Your task to perform on an android device: Is it going to rain today? Image 0: 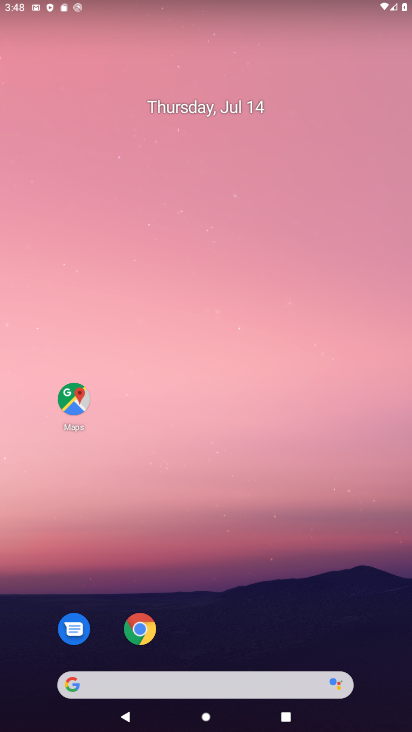
Step 0: click (115, 685)
Your task to perform on an android device: Is it going to rain today? Image 1: 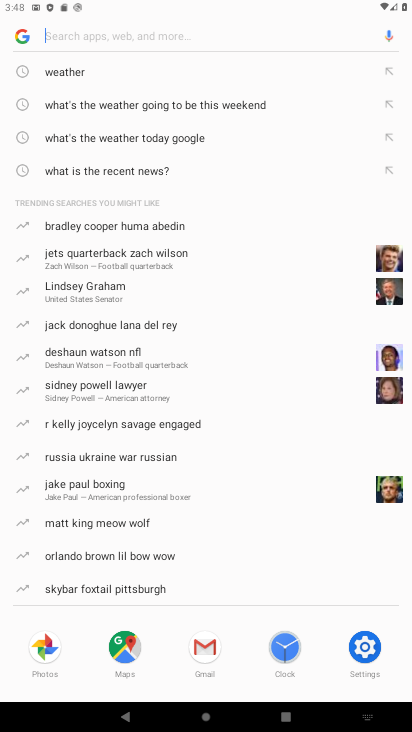
Step 1: type "Is it going to rain today?"
Your task to perform on an android device: Is it going to rain today? Image 2: 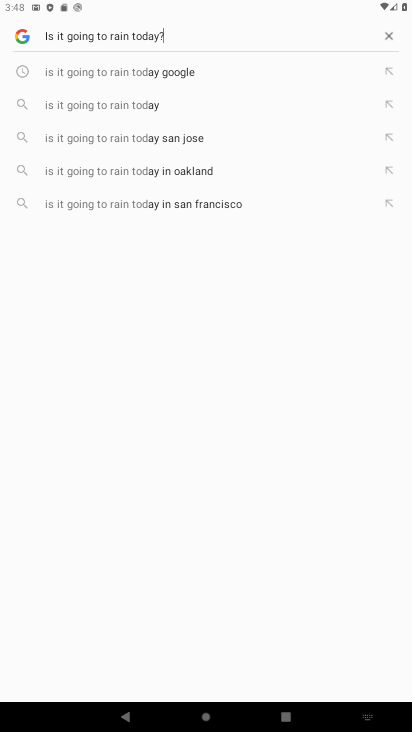
Step 2: type ""
Your task to perform on an android device: Is it going to rain today? Image 3: 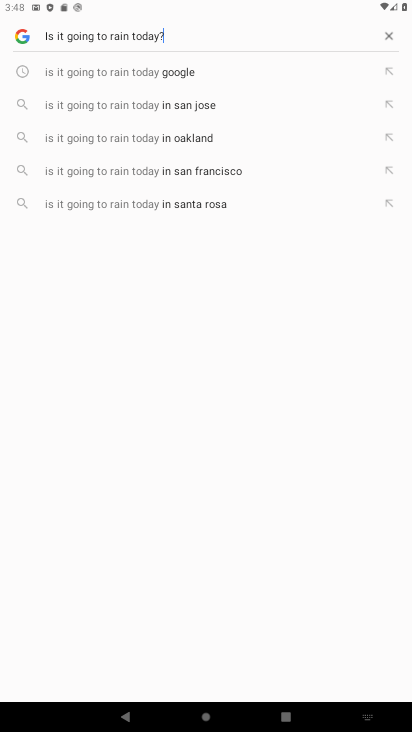
Step 3: type ""
Your task to perform on an android device: Is it going to rain today? Image 4: 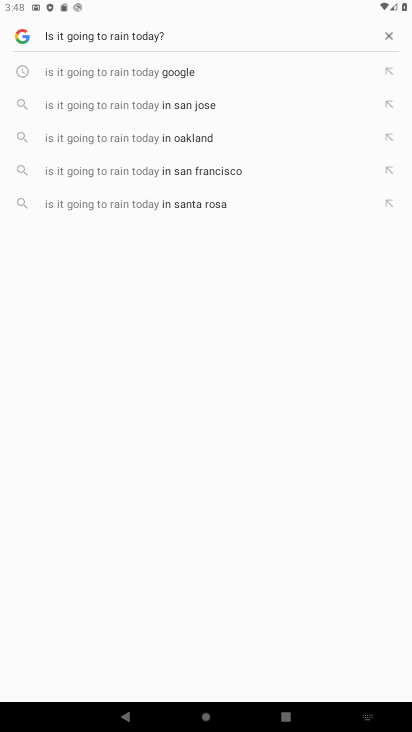
Step 4: type ""
Your task to perform on an android device: Is it going to rain today? Image 5: 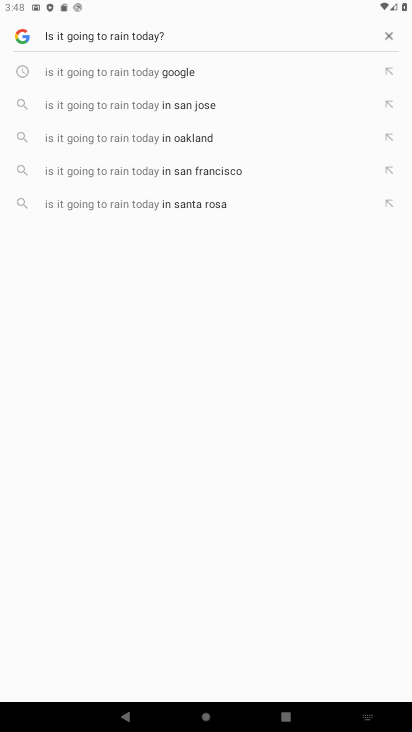
Step 5: task complete